Your task to perform on an android device: uninstall "VLC for Android" Image 0: 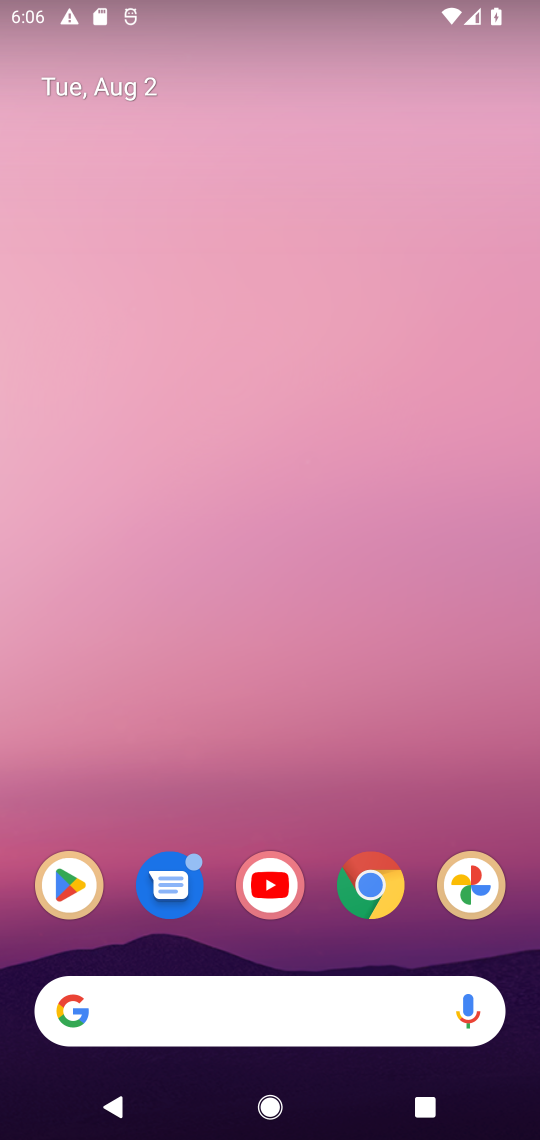
Step 0: drag from (433, 815) to (369, 98)
Your task to perform on an android device: uninstall "VLC for Android" Image 1: 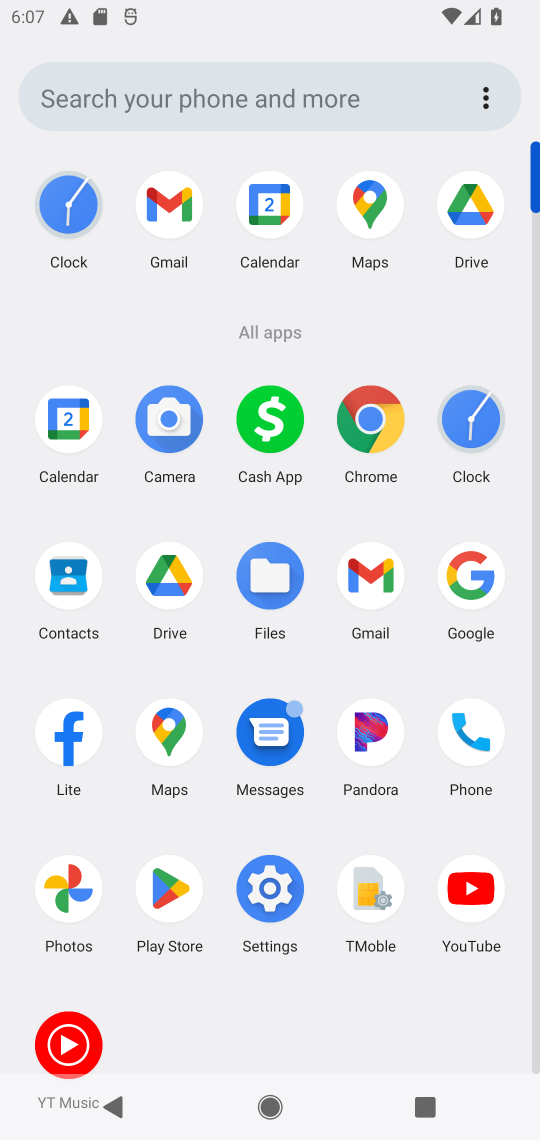
Step 1: click (168, 895)
Your task to perform on an android device: uninstall "VLC for Android" Image 2: 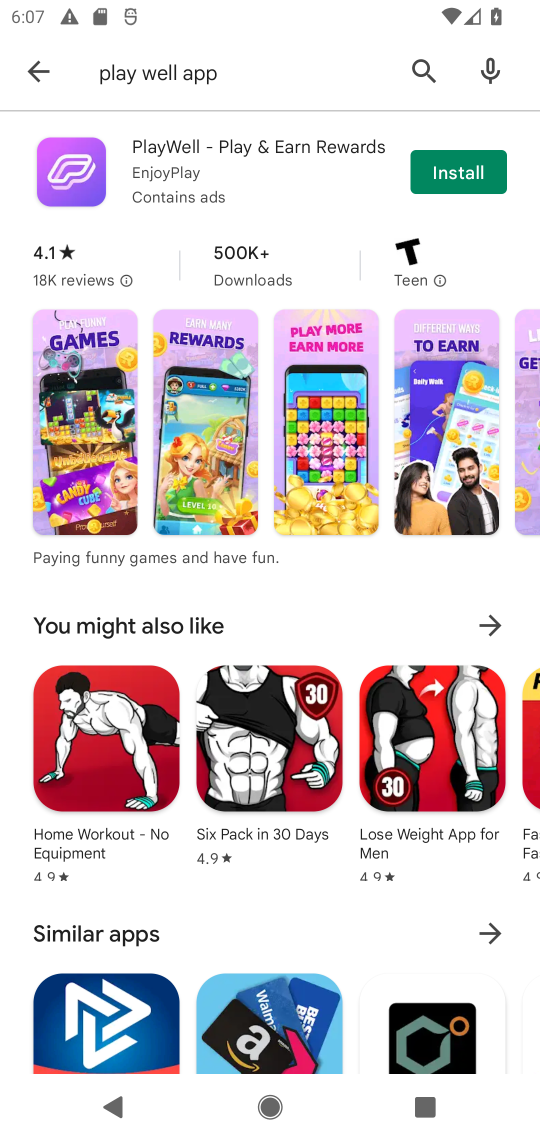
Step 2: click (414, 67)
Your task to perform on an android device: uninstall "VLC for Android" Image 3: 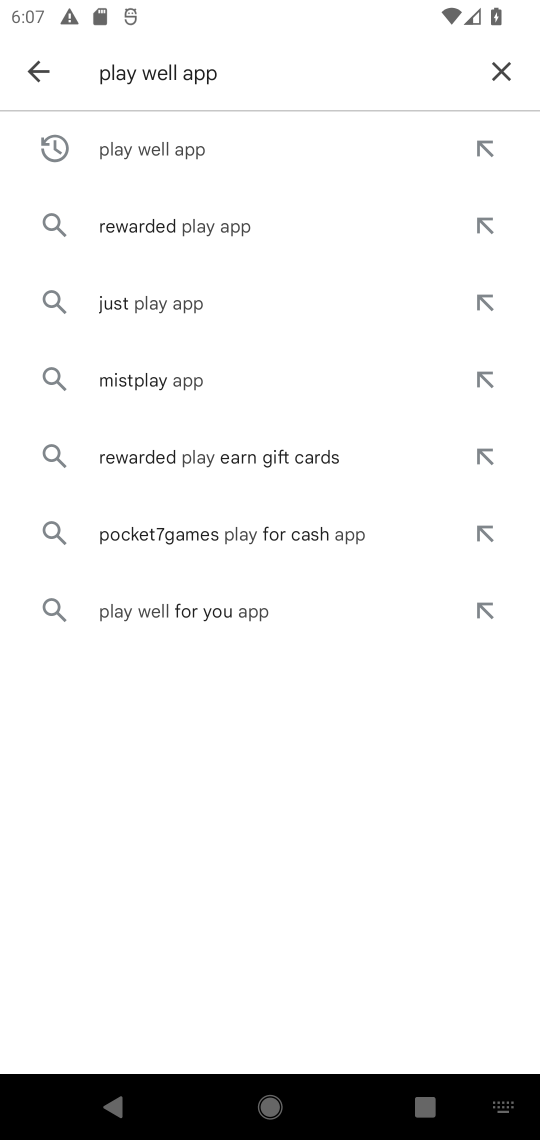
Step 3: click (516, 63)
Your task to perform on an android device: uninstall "VLC for Android" Image 4: 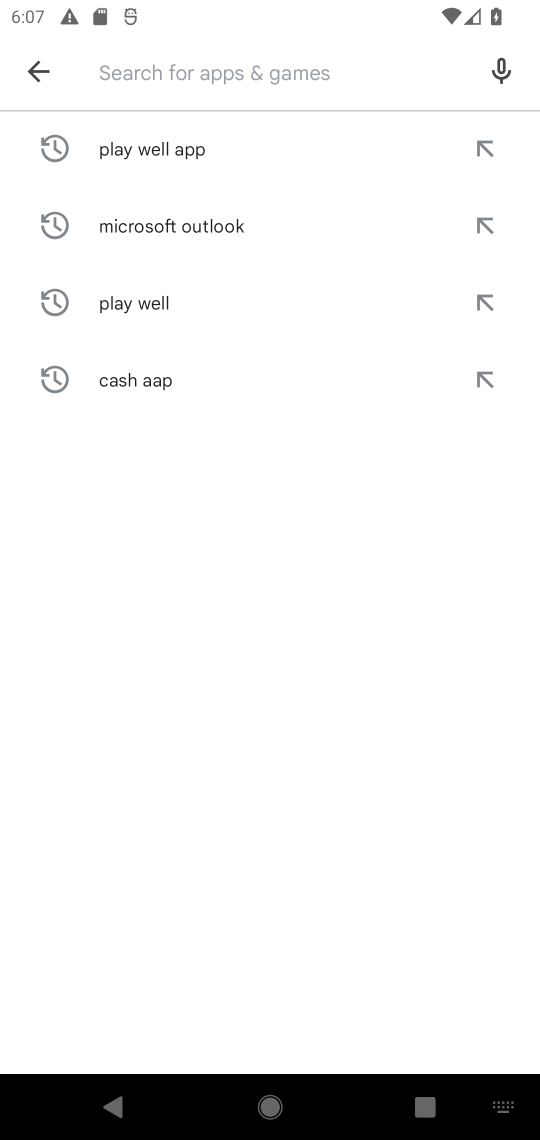
Step 4: type "vlc for android "
Your task to perform on an android device: uninstall "VLC for Android" Image 5: 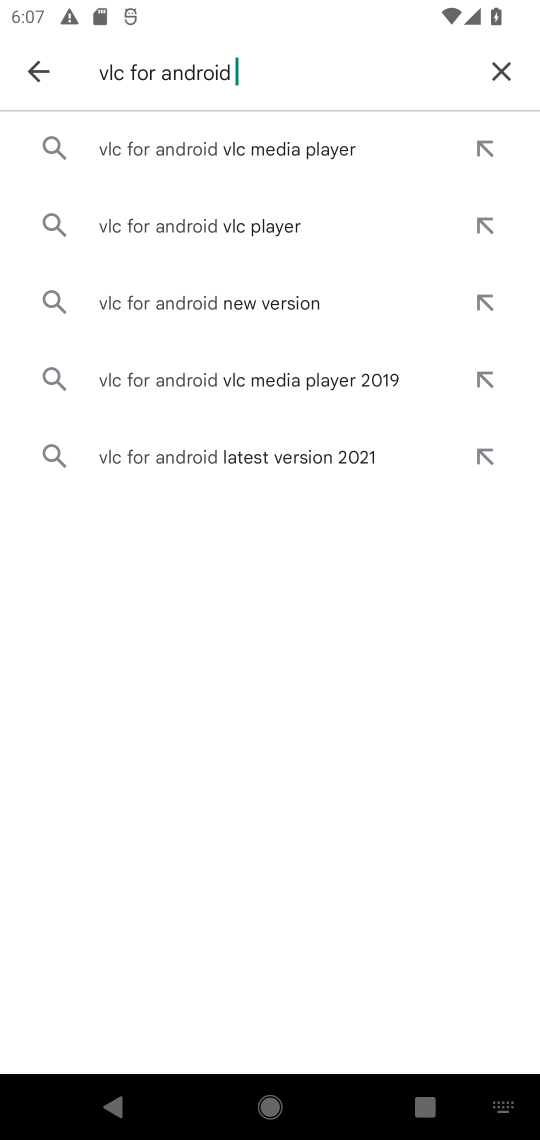
Step 5: click (286, 157)
Your task to perform on an android device: uninstall "VLC for Android" Image 6: 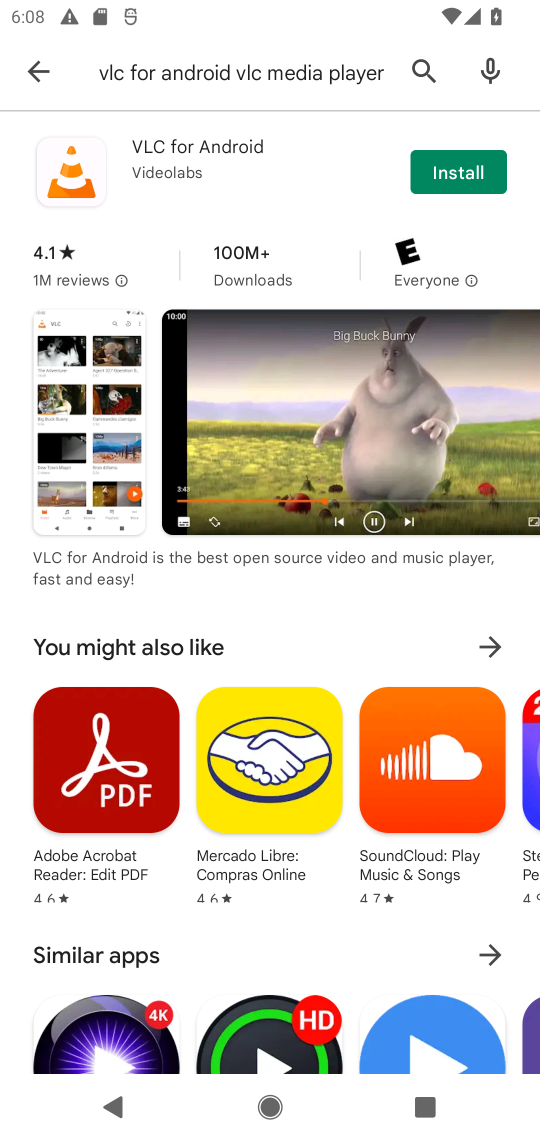
Step 6: task complete